Your task to perform on an android device: Show me productivity apps on the Play Store Image 0: 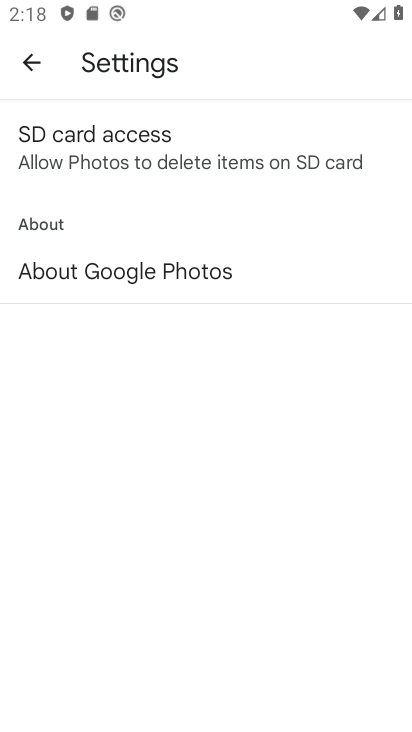
Step 0: press back button
Your task to perform on an android device: Show me productivity apps on the Play Store Image 1: 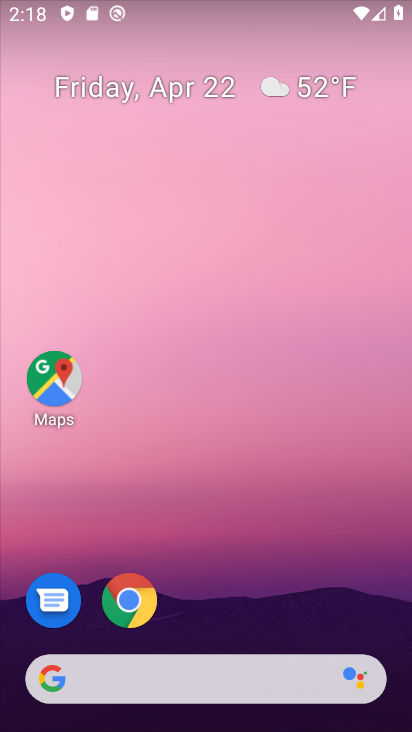
Step 1: drag from (284, 543) to (147, 13)
Your task to perform on an android device: Show me productivity apps on the Play Store Image 2: 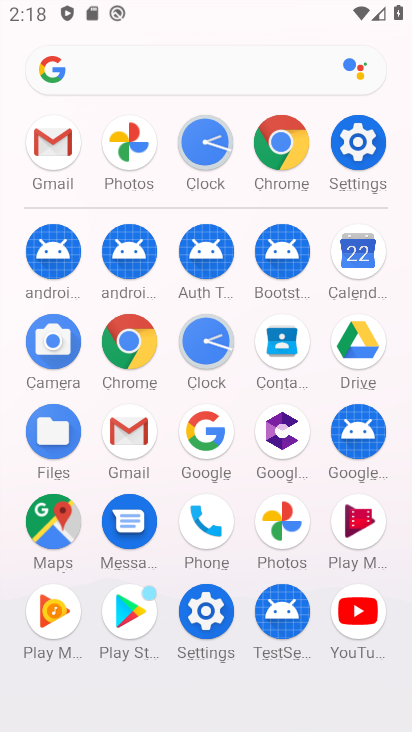
Step 2: click (125, 609)
Your task to perform on an android device: Show me productivity apps on the Play Store Image 3: 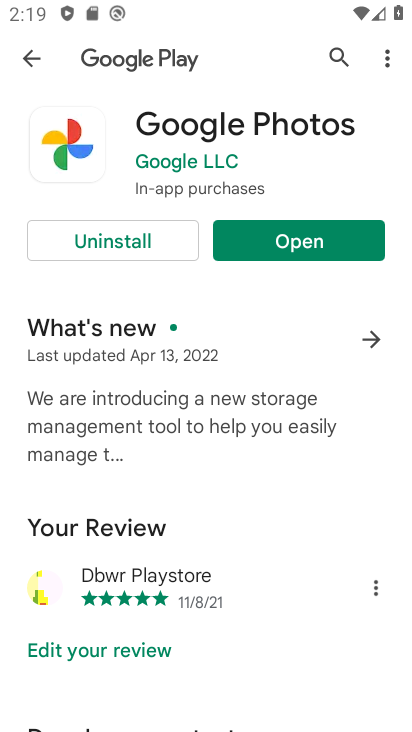
Step 3: click (22, 49)
Your task to perform on an android device: Show me productivity apps on the Play Store Image 4: 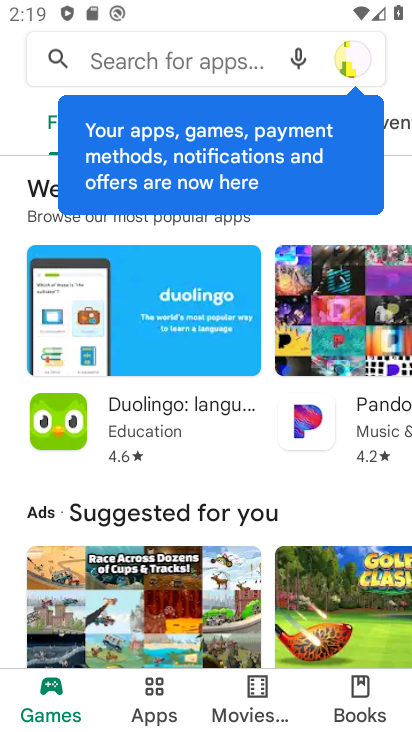
Step 4: click (143, 707)
Your task to perform on an android device: Show me productivity apps on the Play Store Image 5: 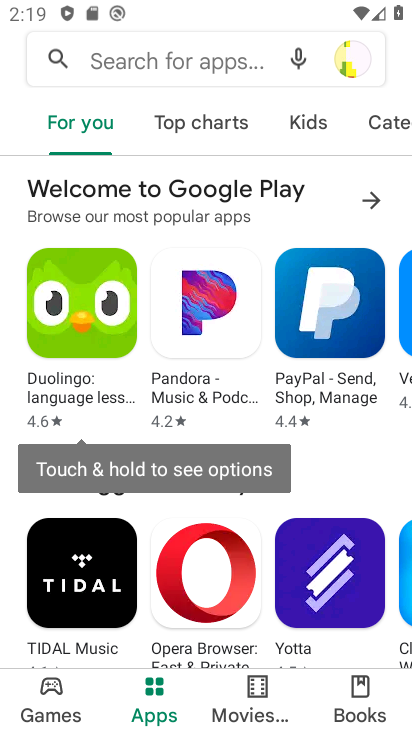
Step 5: drag from (223, 543) to (207, 223)
Your task to perform on an android device: Show me productivity apps on the Play Store Image 6: 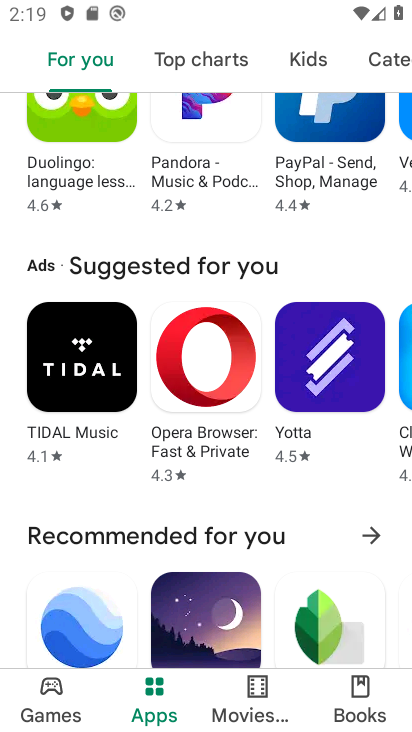
Step 6: drag from (259, 529) to (205, 143)
Your task to perform on an android device: Show me productivity apps on the Play Store Image 7: 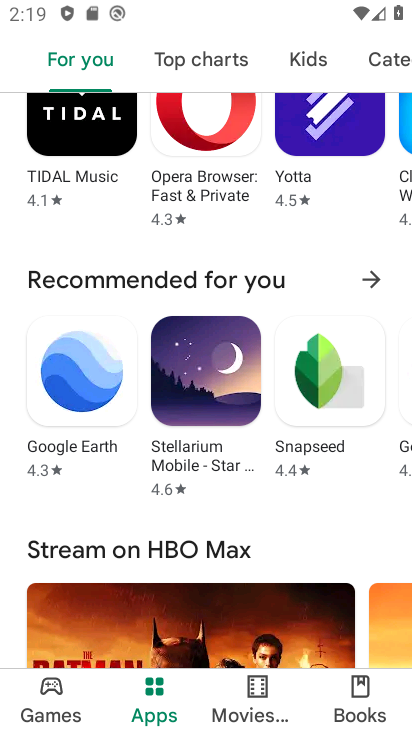
Step 7: drag from (251, 505) to (249, 128)
Your task to perform on an android device: Show me productivity apps on the Play Store Image 8: 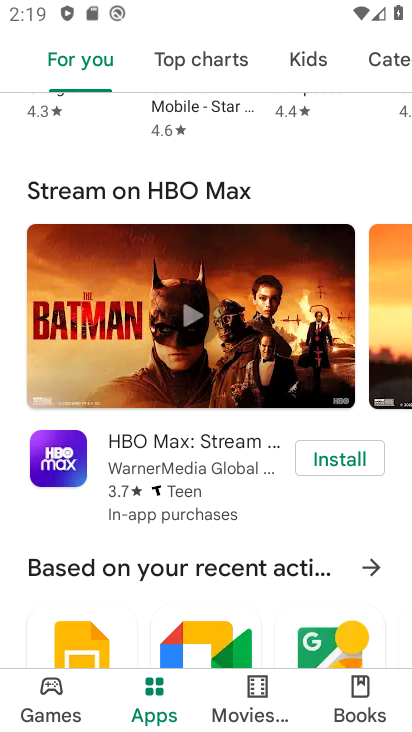
Step 8: drag from (261, 471) to (278, 165)
Your task to perform on an android device: Show me productivity apps on the Play Store Image 9: 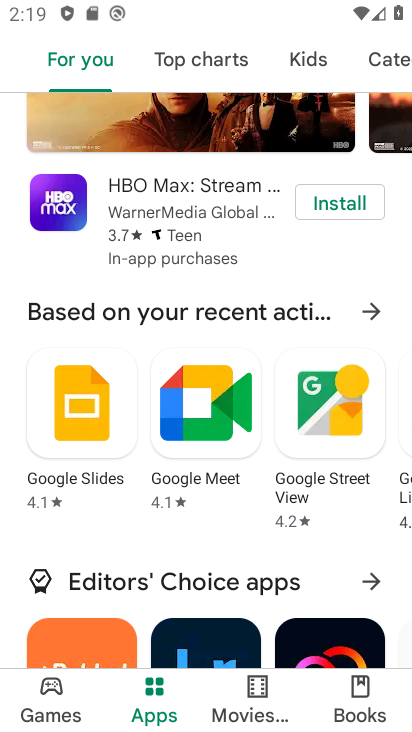
Step 9: drag from (239, 510) to (226, 217)
Your task to perform on an android device: Show me productivity apps on the Play Store Image 10: 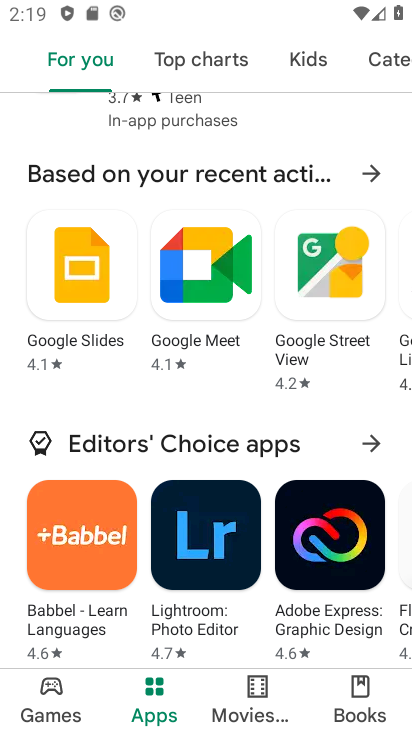
Step 10: drag from (310, 540) to (235, 101)
Your task to perform on an android device: Show me productivity apps on the Play Store Image 11: 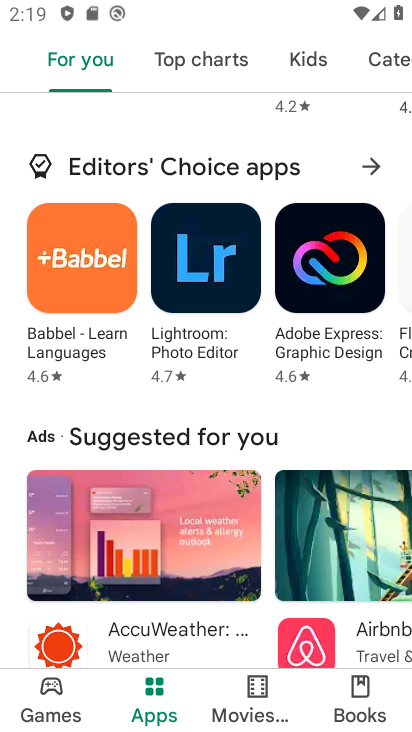
Step 11: drag from (250, 459) to (249, 9)
Your task to perform on an android device: Show me productivity apps on the Play Store Image 12: 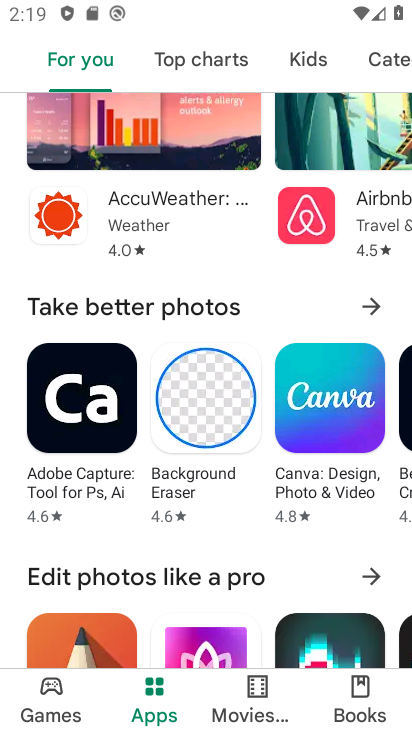
Step 12: drag from (273, 441) to (259, 148)
Your task to perform on an android device: Show me productivity apps on the Play Store Image 13: 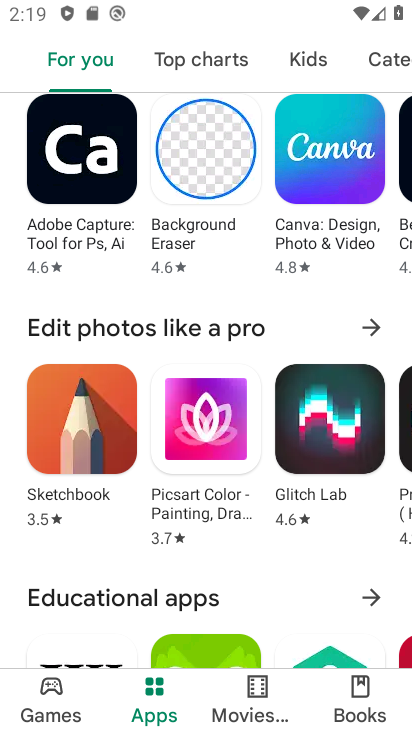
Step 13: drag from (236, 563) to (227, 193)
Your task to perform on an android device: Show me productivity apps on the Play Store Image 14: 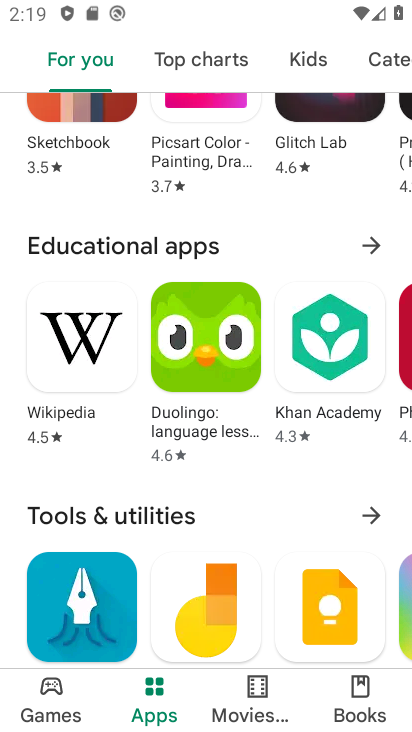
Step 14: drag from (284, 416) to (290, 115)
Your task to perform on an android device: Show me productivity apps on the Play Store Image 15: 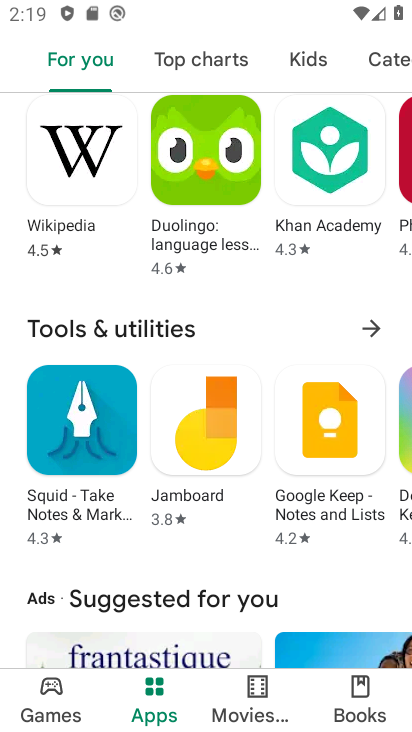
Step 15: drag from (200, 334) to (234, 173)
Your task to perform on an android device: Show me productivity apps on the Play Store Image 16: 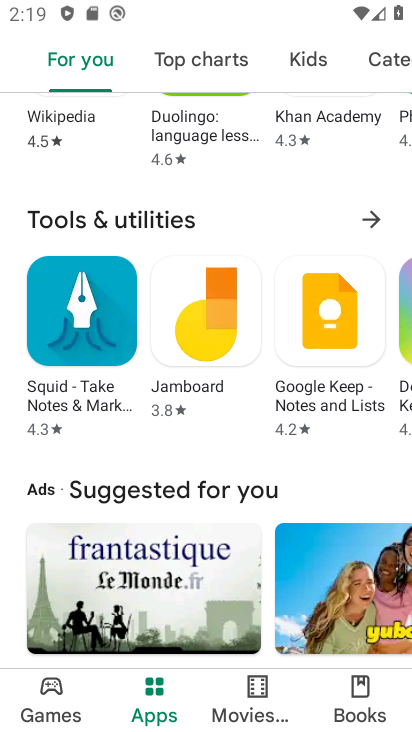
Step 16: drag from (192, 494) to (198, 252)
Your task to perform on an android device: Show me productivity apps on the Play Store Image 17: 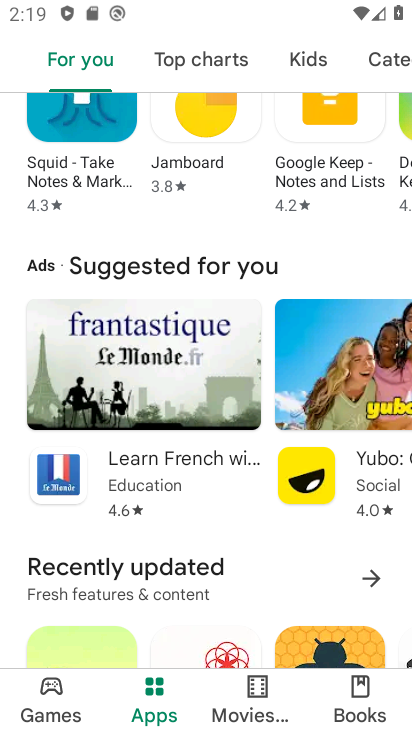
Step 17: drag from (201, 550) to (211, 318)
Your task to perform on an android device: Show me productivity apps on the Play Store Image 18: 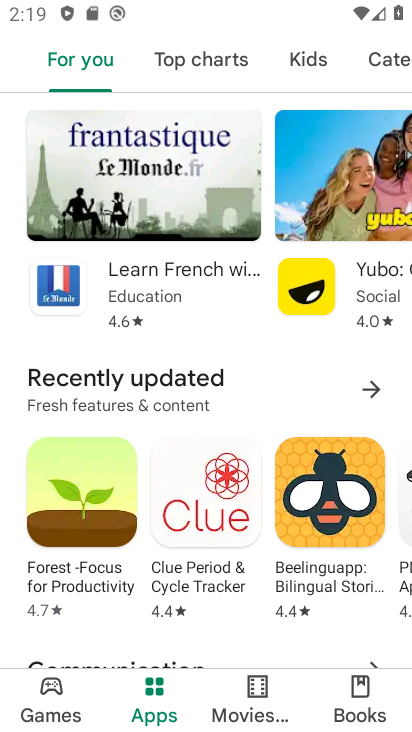
Step 18: drag from (231, 613) to (222, 317)
Your task to perform on an android device: Show me productivity apps on the Play Store Image 19: 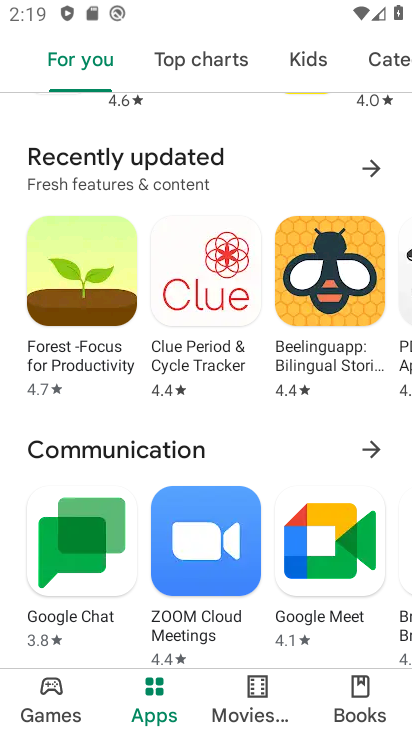
Step 19: drag from (236, 613) to (235, 328)
Your task to perform on an android device: Show me productivity apps on the Play Store Image 20: 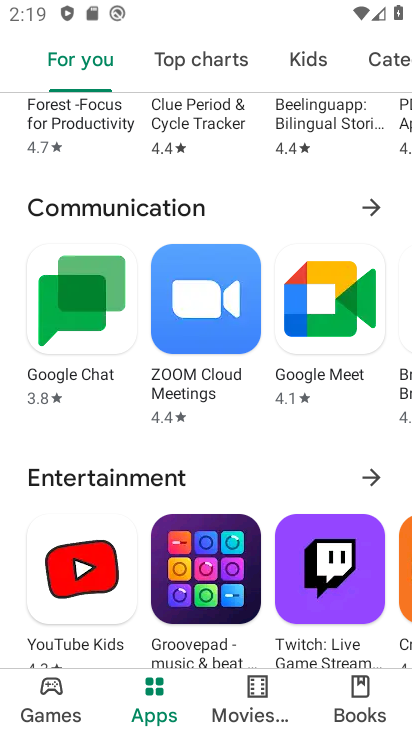
Step 20: drag from (284, 558) to (295, 197)
Your task to perform on an android device: Show me productivity apps on the Play Store Image 21: 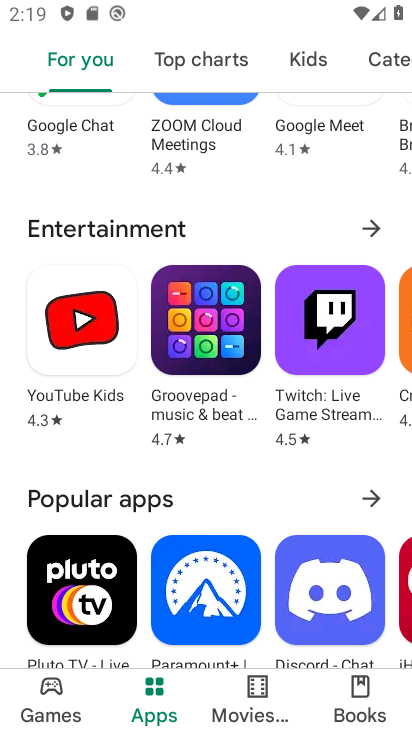
Step 21: drag from (266, 451) to (272, 175)
Your task to perform on an android device: Show me productivity apps on the Play Store Image 22: 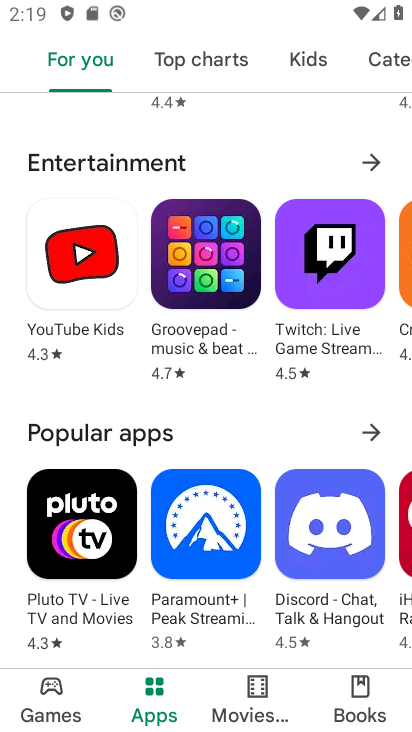
Step 22: click (382, 58)
Your task to perform on an android device: Show me productivity apps on the Play Store Image 23: 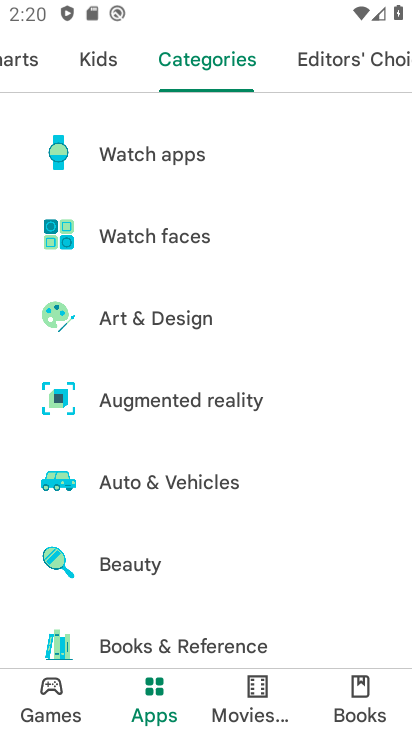
Step 23: drag from (305, 521) to (277, 122)
Your task to perform on an android device: Show me productivity apps on the Play Store Image 24: 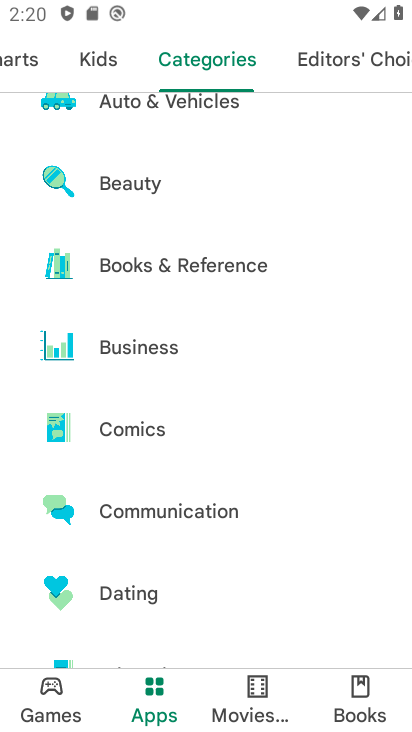
Step 24: drag from (269, 512) to (287, 82)
Your task to perform on an android device: Show me productivity apps on the Play Store Image 25: 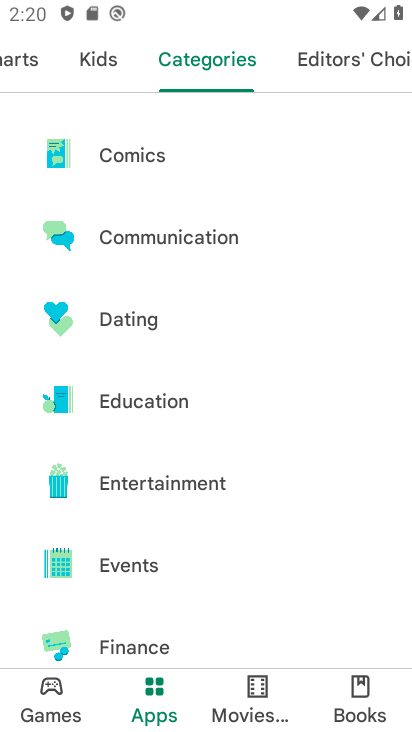
Step 25: drag from (292, 545) to (274, 119)
Your task to perform on an android device: Show me productivity apps on the Play Store Image 26: 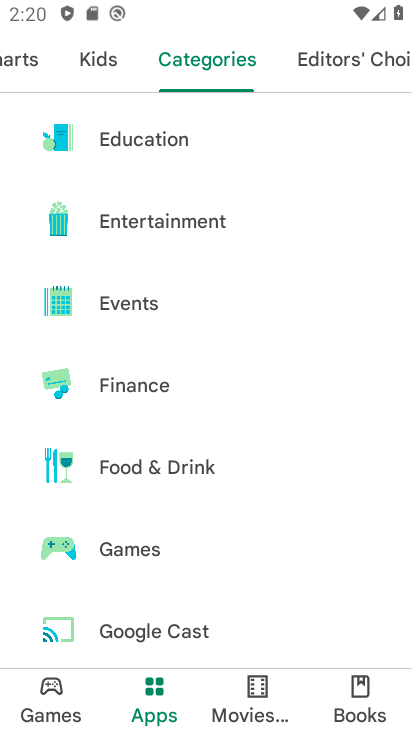
Step 26: drag from (242, 153) to (239, 110)
Your task to perform on an android device: Show me productivity apps on the Play Store Image 27: 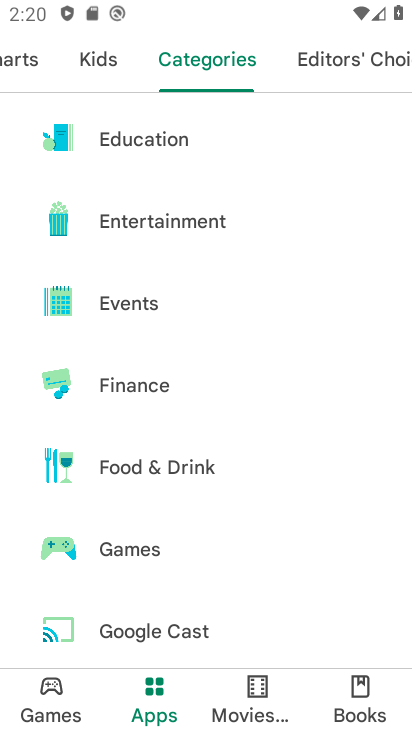
Step 27: drag from (232, 211) to (232, 107)
Your task to perform on an android device: Show me productivity apps on the Play Store Image 28: 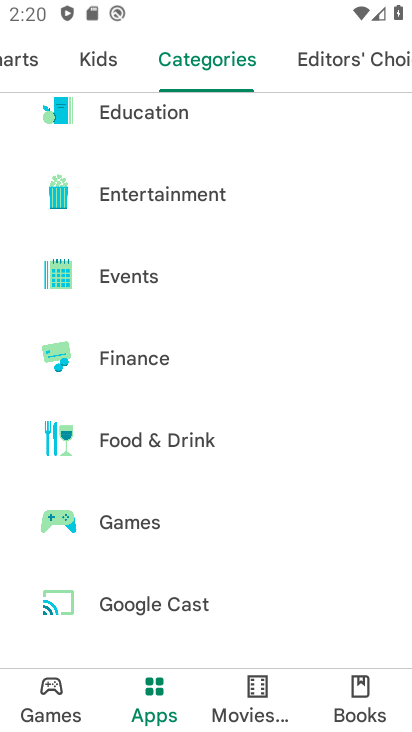
Step 28: drag from (231, 564) to (229, 163)
Your task to perform on an android device: Show me productivity apps on the Play Store Image 29: 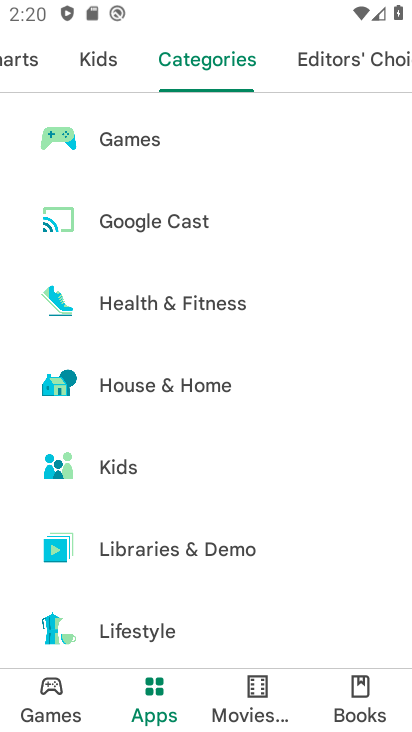
Step 29: drag from (246, 599) to (211, 146)
Your task to perform on an android device: Show me productivity apps on the Play Store Image 30: 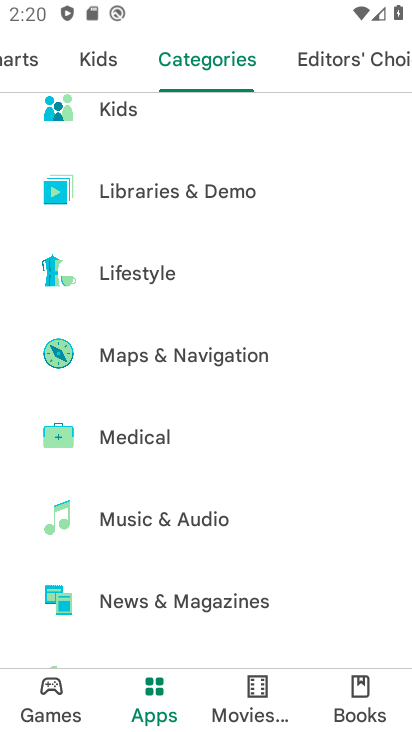
Step 30: drag from (275, 609) to (273, 228)
Your task to perform on an android device: Show me productivity apps on the Play Store Image 31: 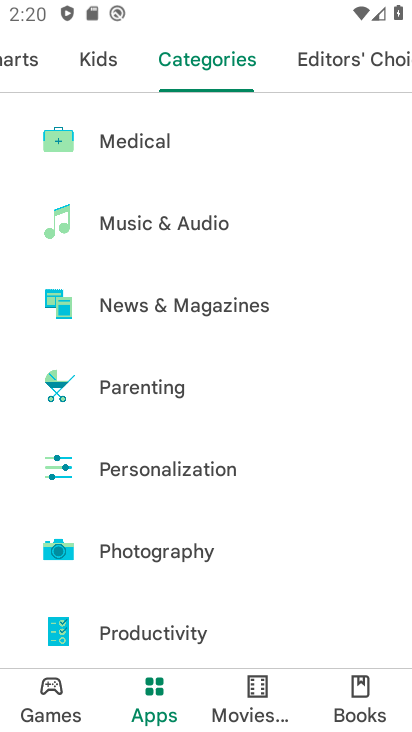
Step 31: click (185, 631)
Your task to perform on an android device: Show me productivity apps on the Play Store Image 32: 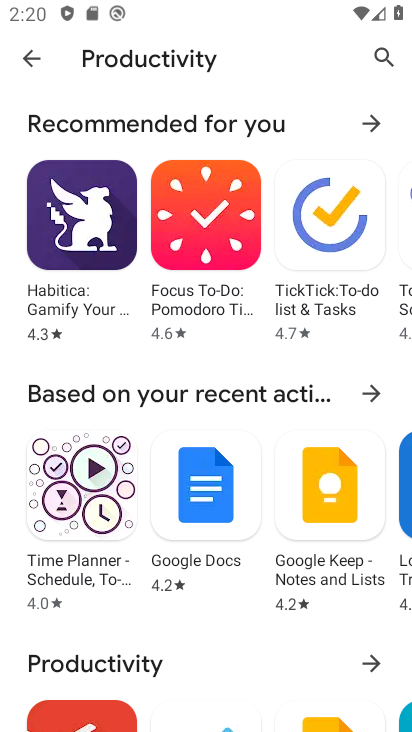
Step 32: drag from (229, 592) to (186, 331)
Your task to perform on an android device: Show me productivity apps on the Play Store Image 33: 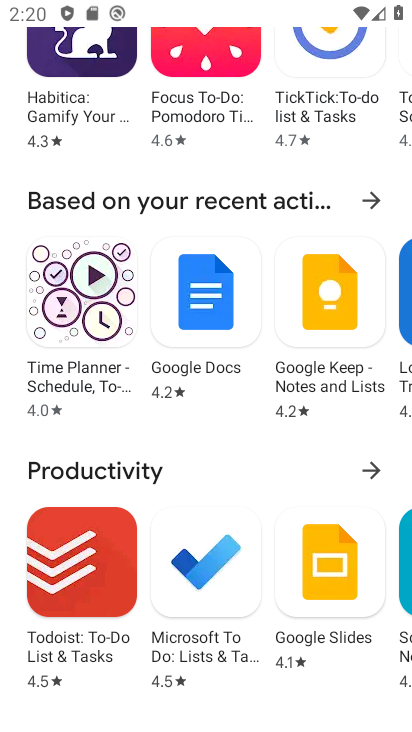
Step 33: drag from (293, 480) to (56, 458)
Your task to perform on an android device: Show me productivity apps on the Play Store Image 34: 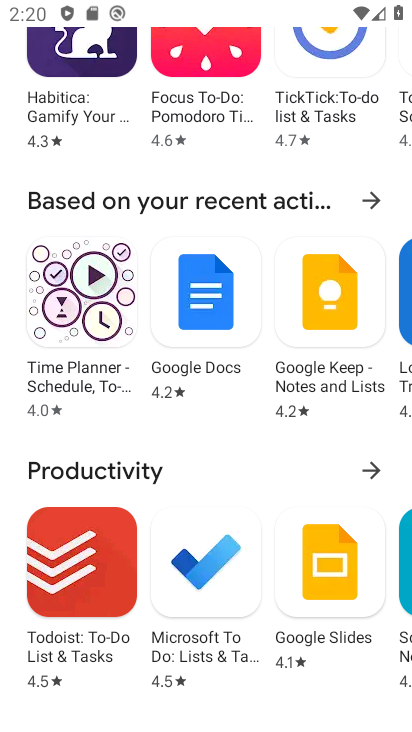
Step 34: click (379, 464)
Your task to perform on an android device: Show me productivity apps on the Play Store Image 35: 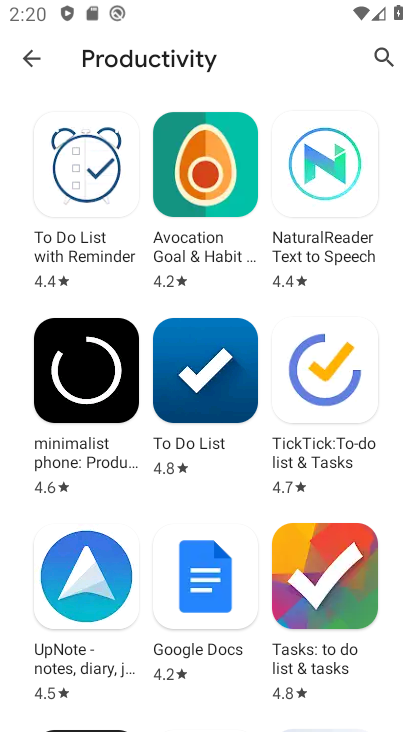
Step 35: task complete